Your task to perform on an android device: Open battery settings Image 0: 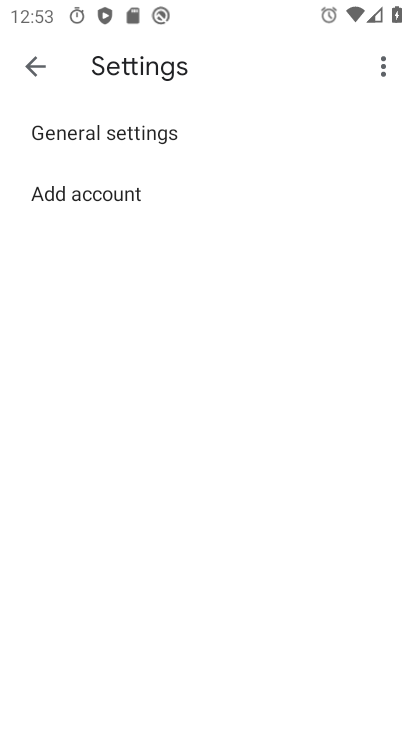
Step 0: press home button
Your task to perform on an android device: Open battery settings Image 1: 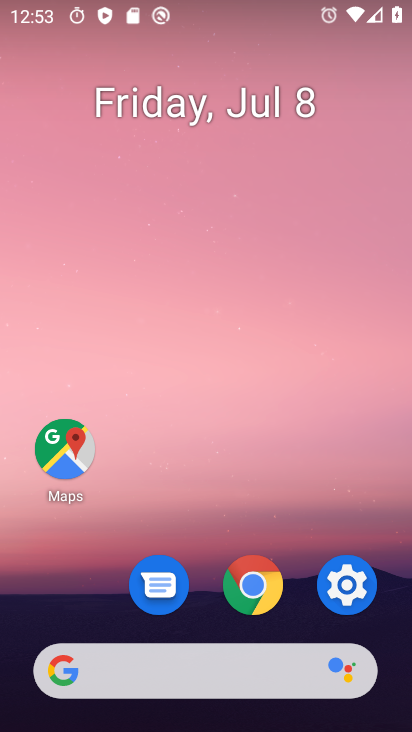
Step 1: click (331, 578)
Your task to perform on an android device: Open battery settings Image 2: 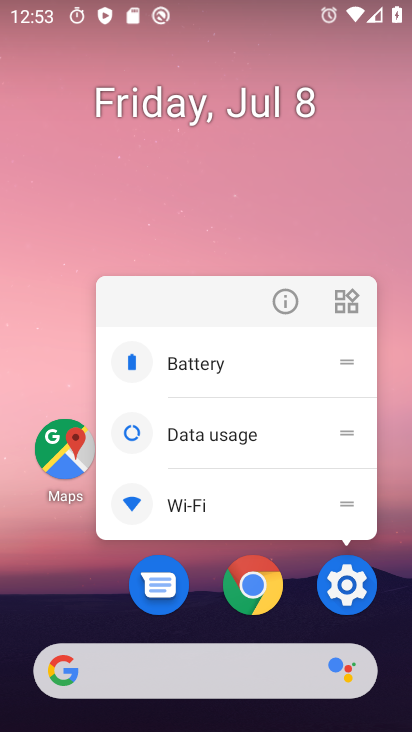
Step 2: click (349, 575)
Your task to perform on an android device: Open battery settings Image 3: 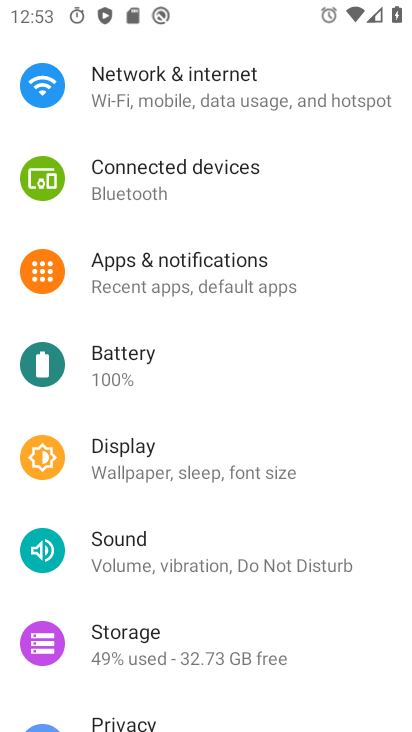
Step 3: click (175, 360)
Your task to perform on an android device: Open battery settings Image 4: 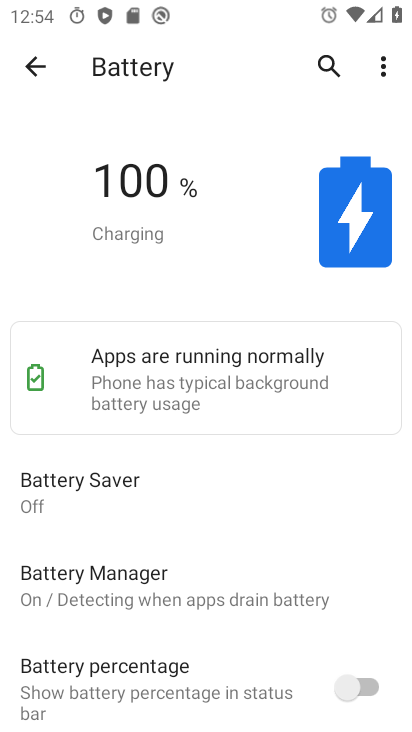
Step 4: task complete